Your task to perform on an android device: change the clock display to show seconds Image 0: 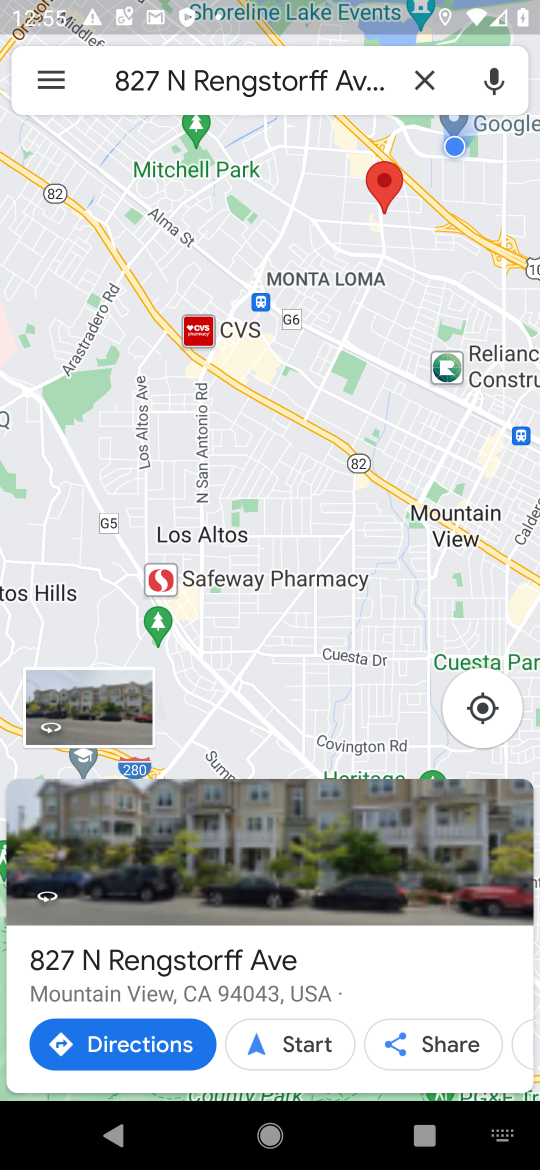
Step 0: drag from (212, 790) to (212, 462)
Your task to perform on an android device: change the clock display to show seconds Image 1: 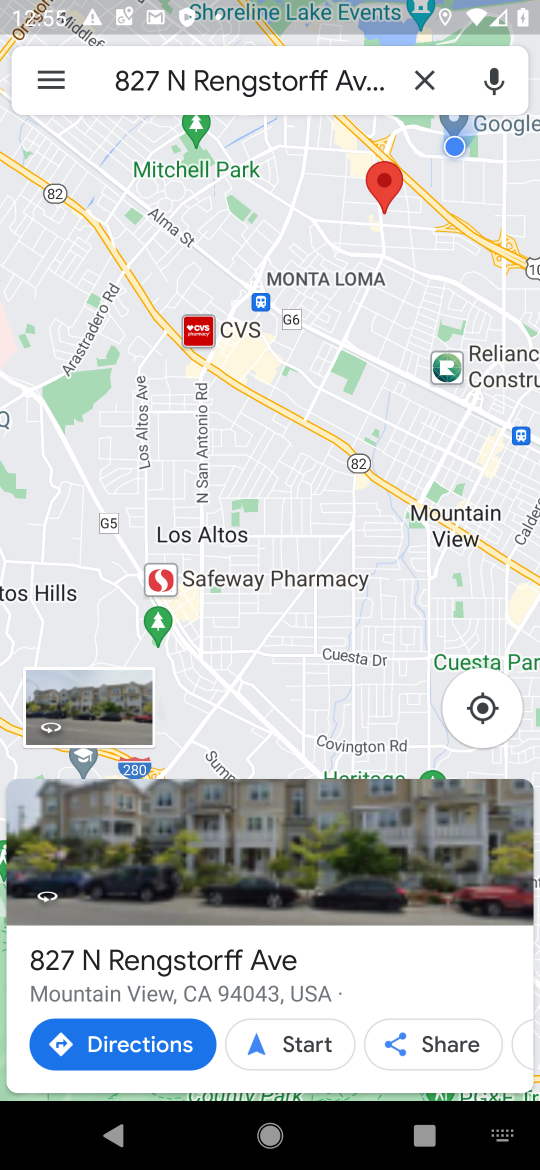
Step 1: drag from (292, 800) to (292, 423)
Your task to perform on an android device: change the clock display to show seconds Image 2: 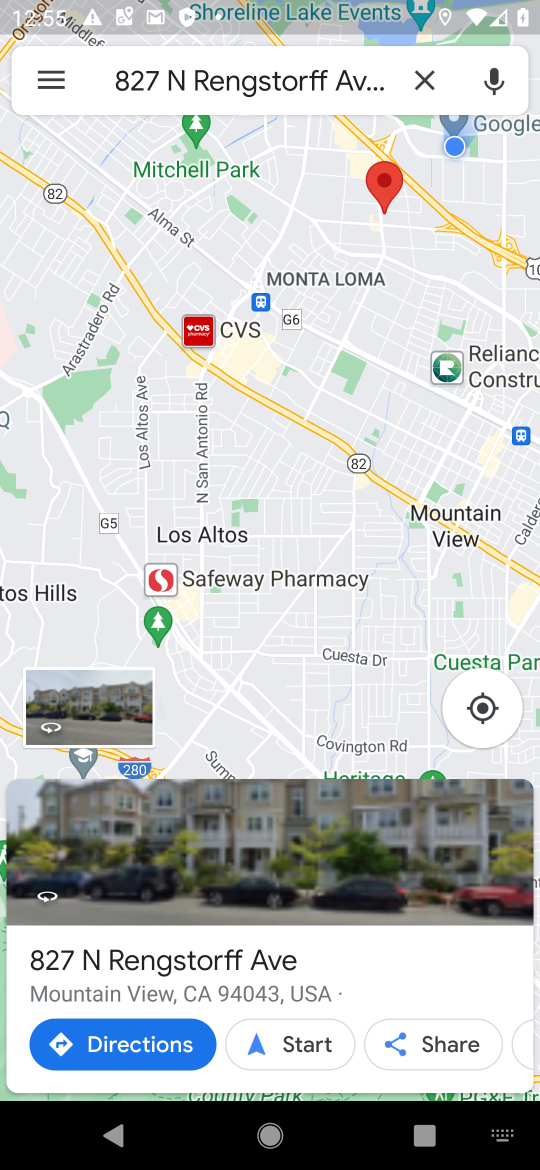
Step 2: press home button
Your task to perform on an android device: change the clock display to show seconds Image 3: 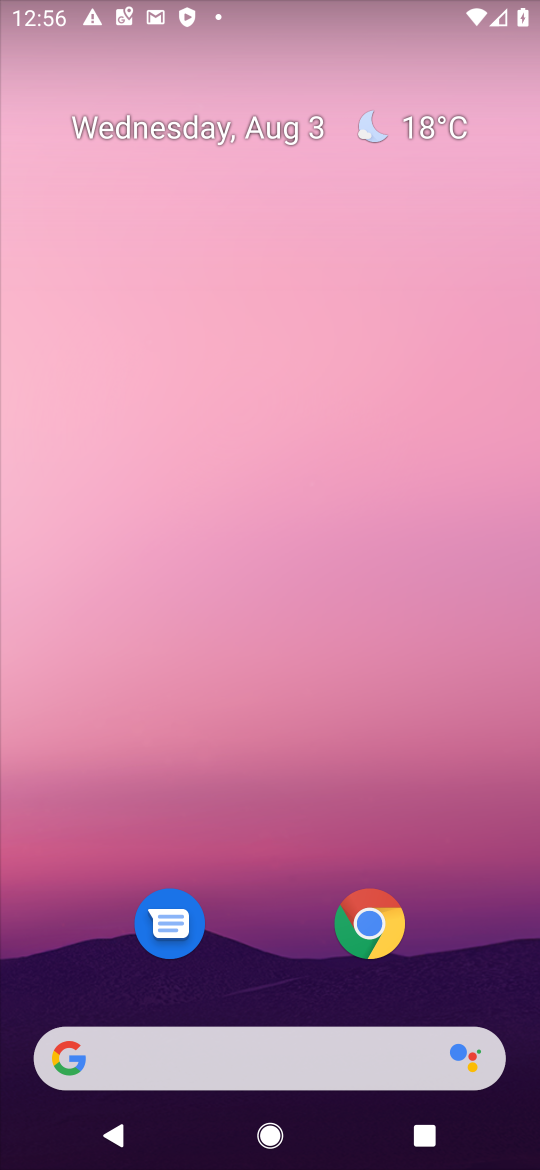
Step 3: drag from (281, 962) to (362, 123)
Your task to perform on an android device: change the clock display to show seconds Image 4: 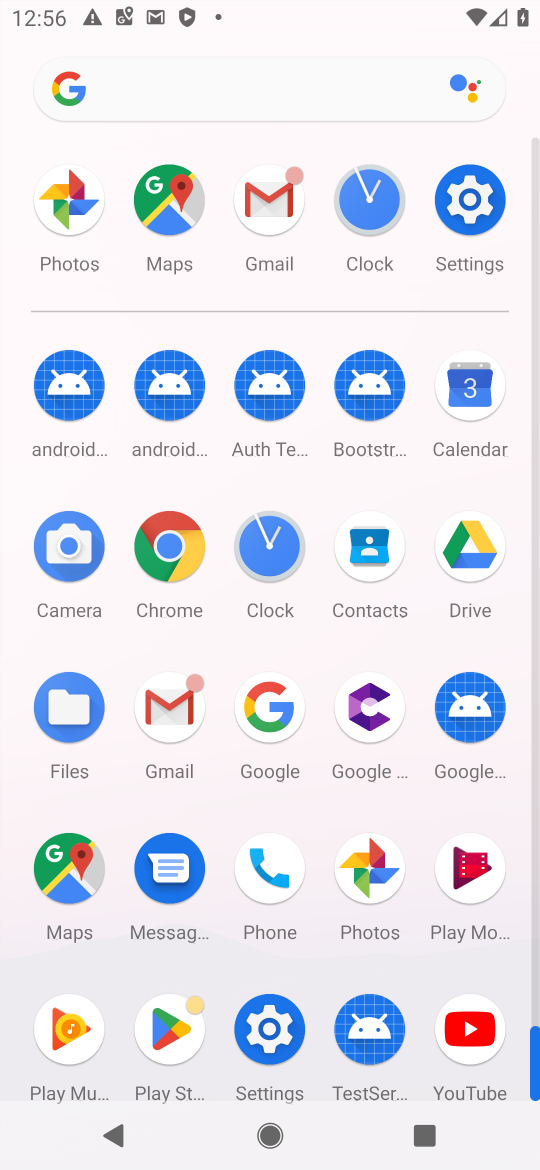
Step 4: click (275, 517)
Your task to perform on an android device: change the clock display to show seconds Image 5: 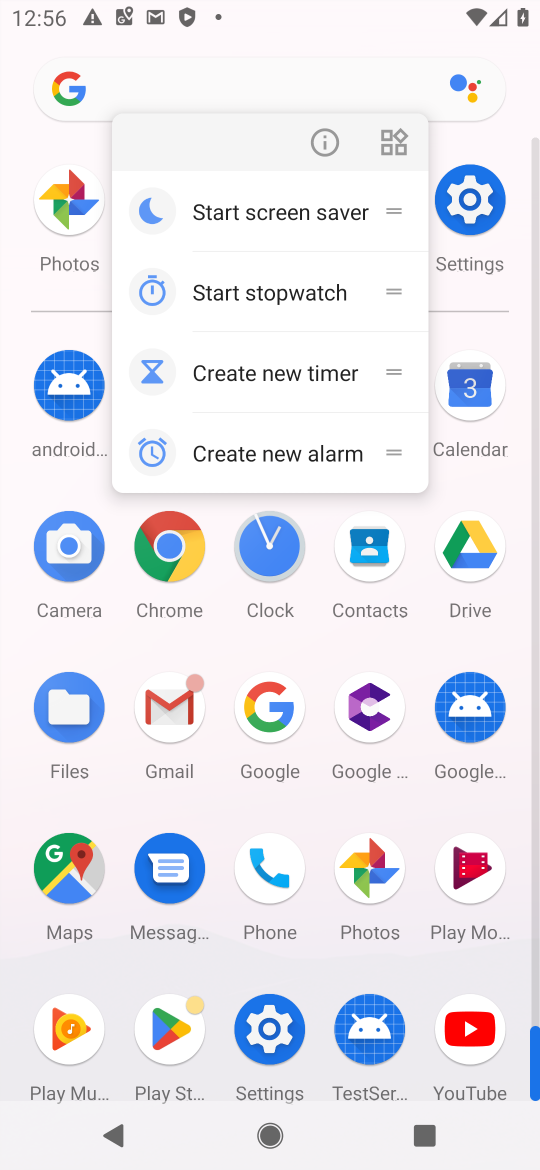
Step 5: click (331, 156)
Your task to perform on an android device: change the clock display to show seconds Image 6: 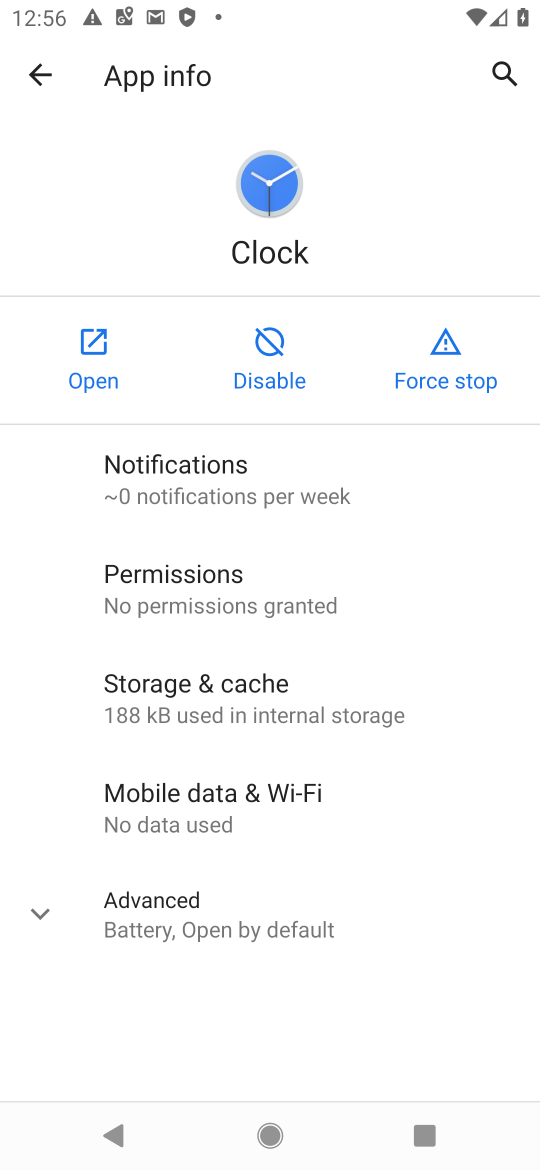
Step 6: click (108, 346)
Your task to perform on an android device: change the clock display to show seconds Image 7: 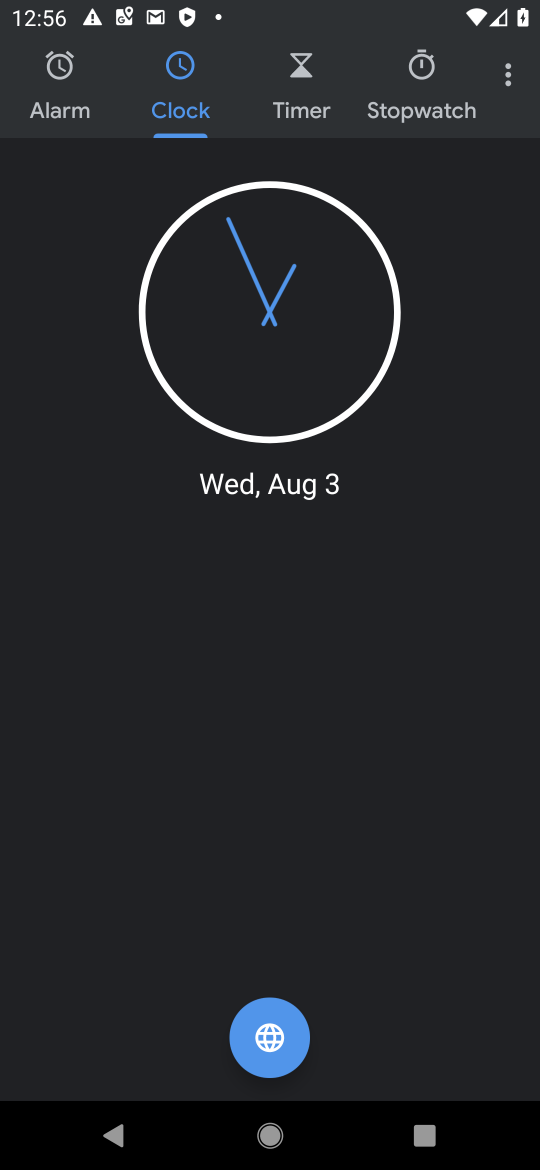
Step 7: click (513, 81)
Your task to perform on an android device: change the clock display to show seconds Image 8: 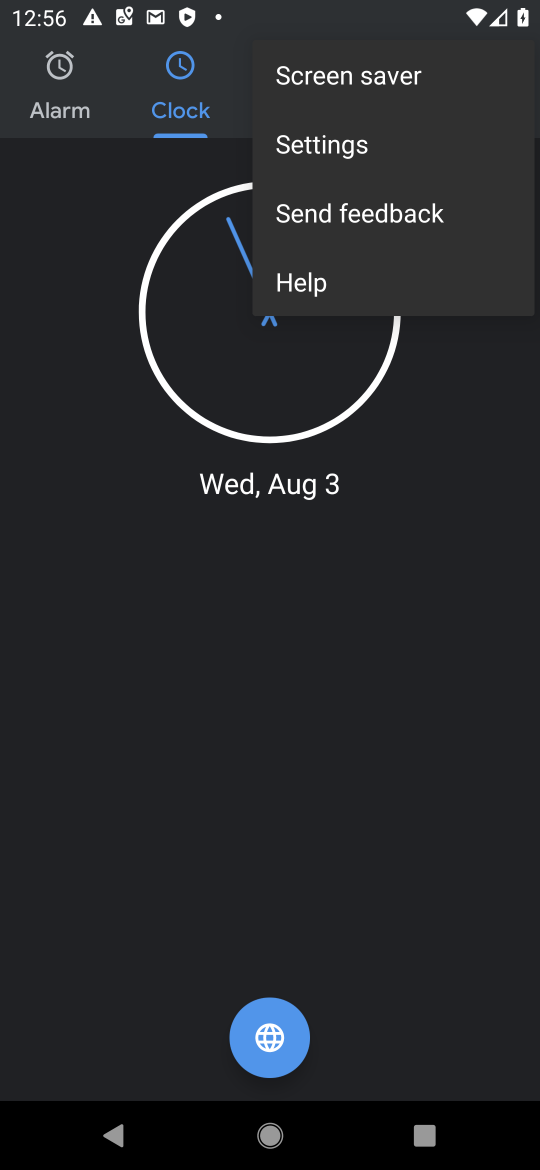
Step 8: click (343, 140)
Your task to perform on an android device: change the clock display to show seconds Image 9: 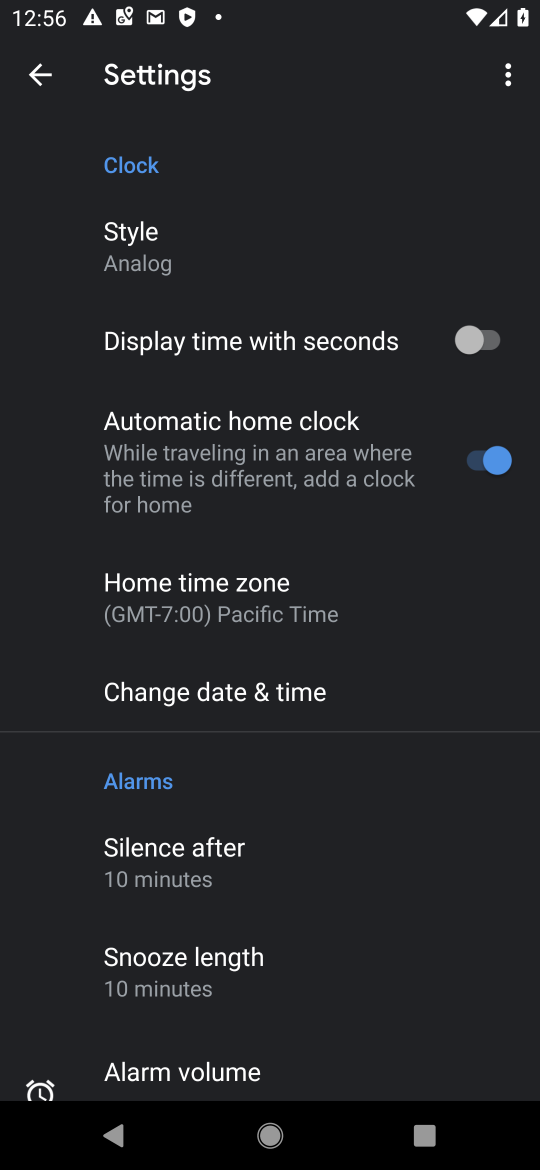
Step 9: drag from (285, 958) to (299, 359)
Your task to perform on an android device: change the clock display to show seconds Image 10: 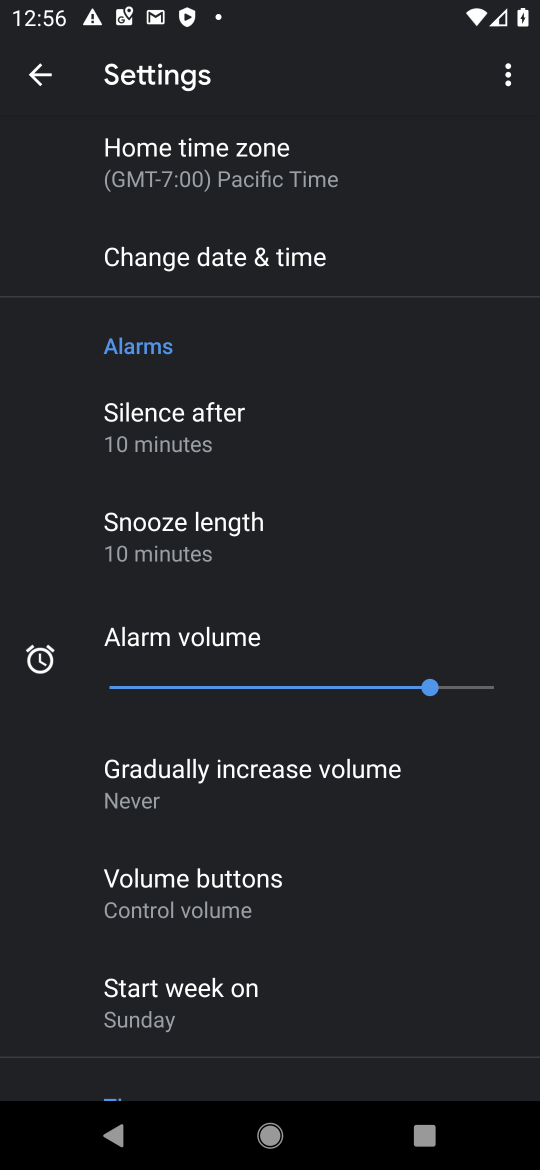
Step 10: drag from (284, 390) to (394, 1165)
Your task to perform on an android device: change the clock display to show seconds Image 11: 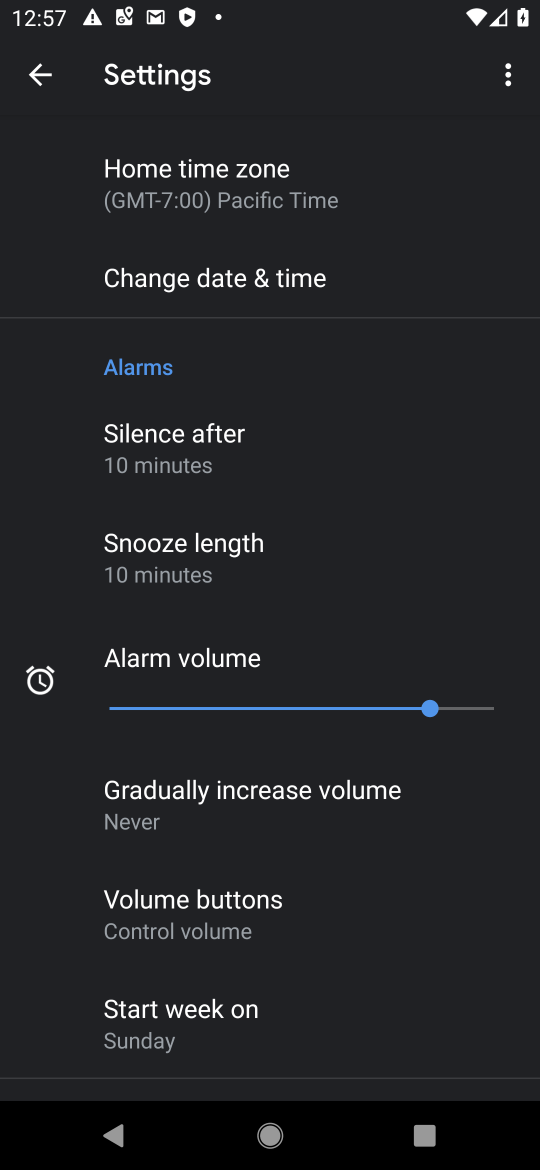
Step 11: drag from (338, 876) to (375, 673)
Your task to perform on an android device: change the clock display to show seconds Image 12: 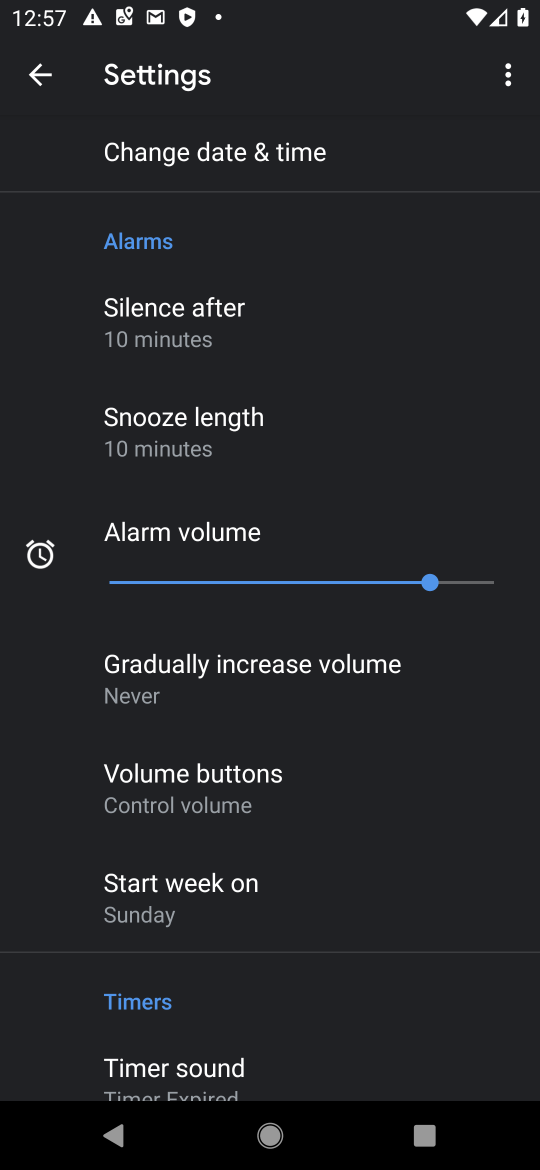
Step 12: drag from (298, 912) to (314, 354)
Your task to perform on an android device: change the clock display to show seconds Image 13: 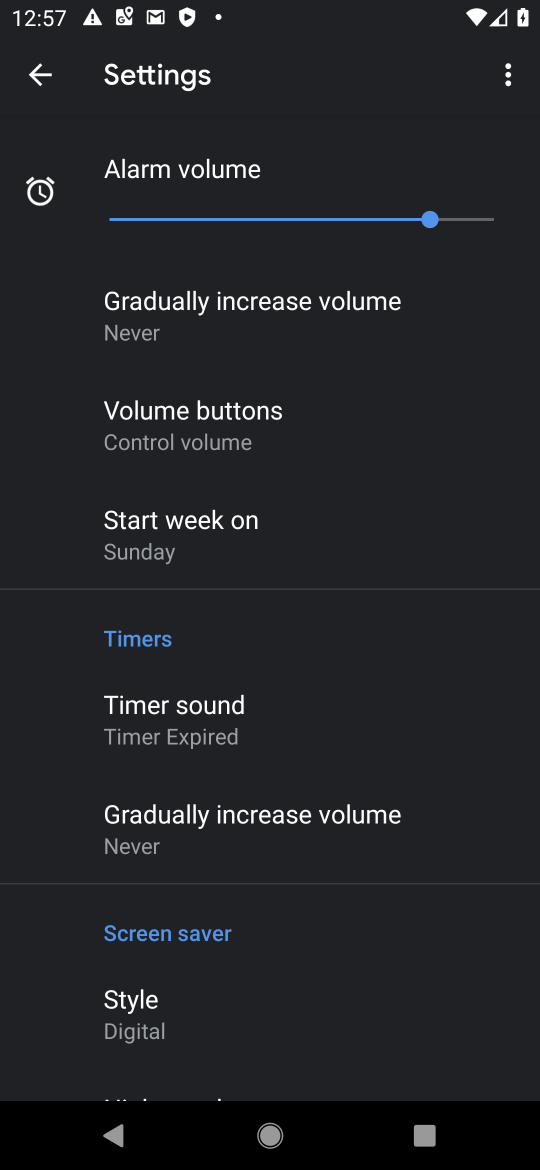
Step 13: drag from (237, 761) to (245, 357)
Your task to perform on an android device: change the clock display to show seconds Image 14: 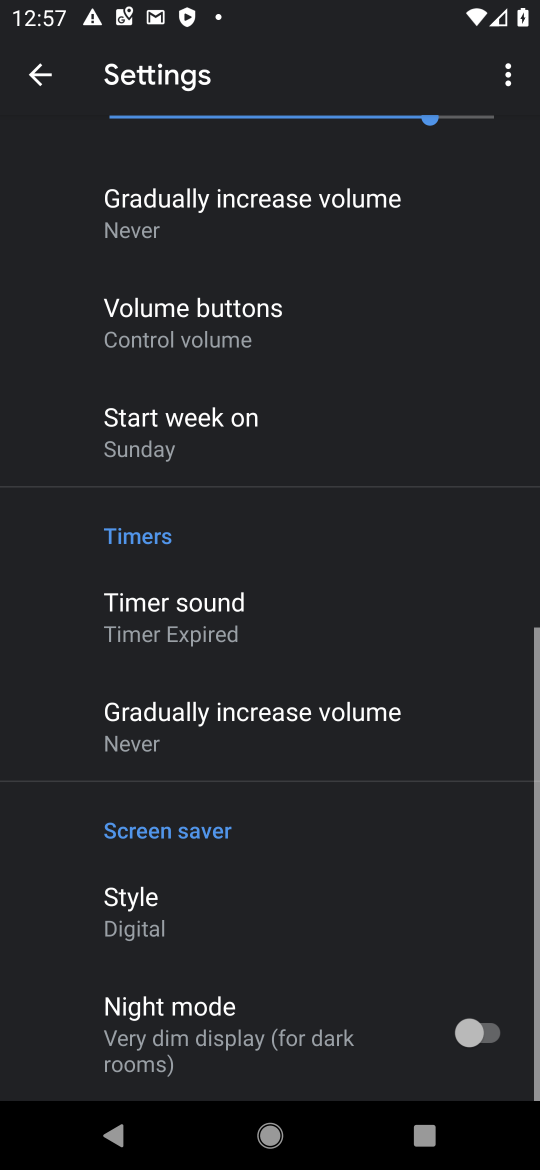
Step 14: drag from (252, 288) to (510, 760)
Your task to perform on an android device: change the clock display to show seconds Image 15: 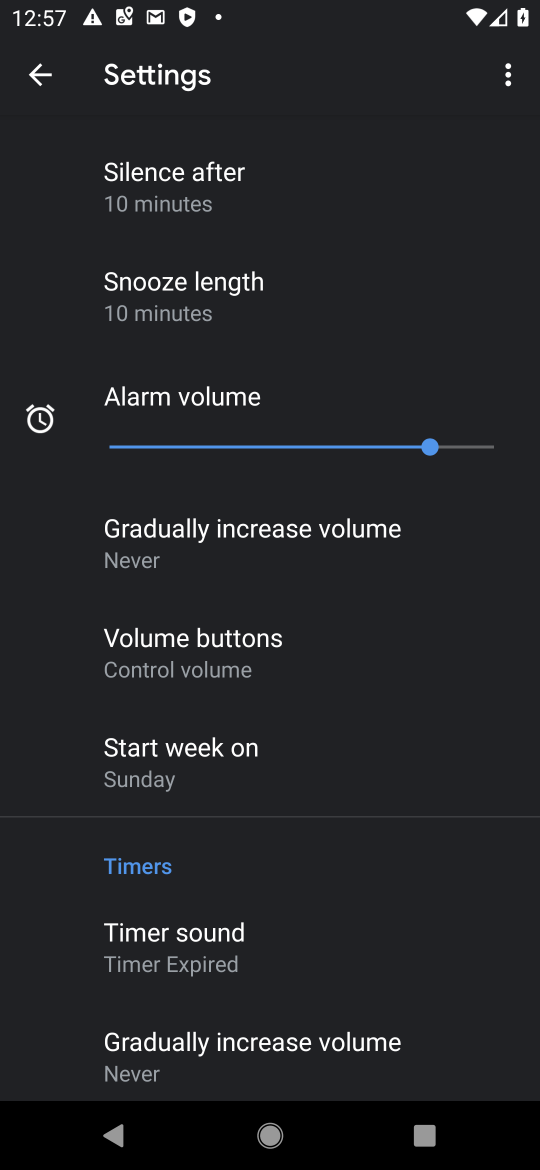
Step 15: drag from (312, 380) to (531, 1032)
Your task to perform on an android device: change the clock display to show seconds Image 16: 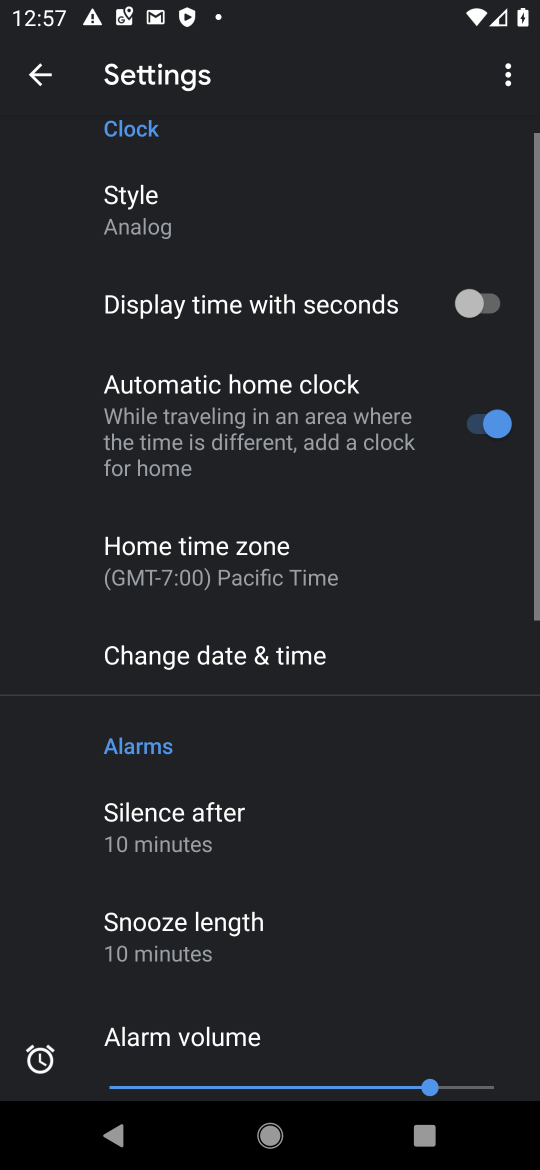
Step 16: drag from (517, 842) to (461, 419)
Your task to perform on an android device: change the clock display to show seconds Image 17: 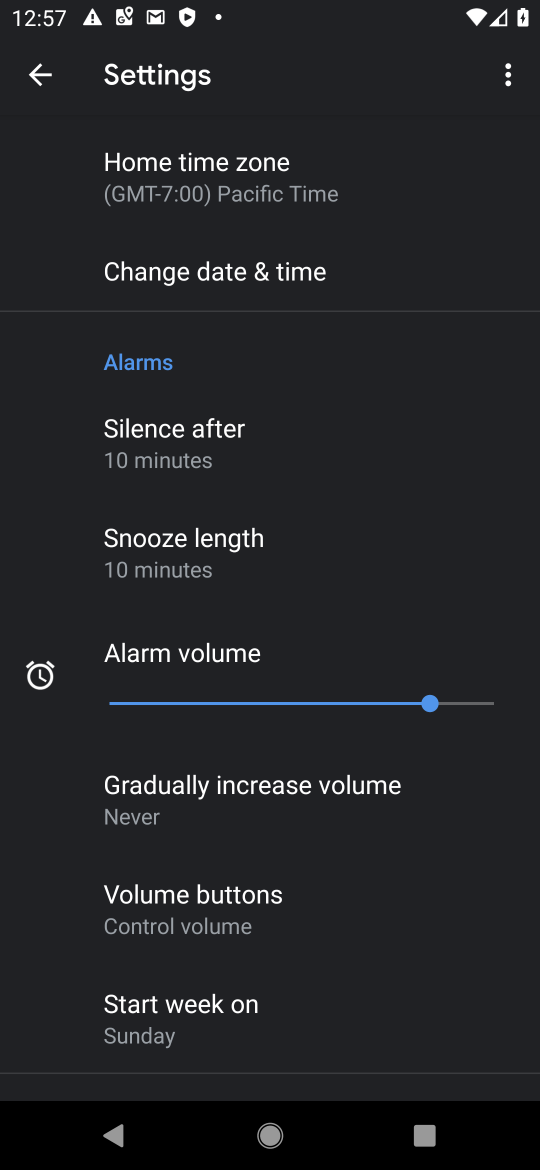
Step 17: drag from (296, 280) to (419, 145)
Your task to perform on an android device: change the clock display to show seconds Image 18: 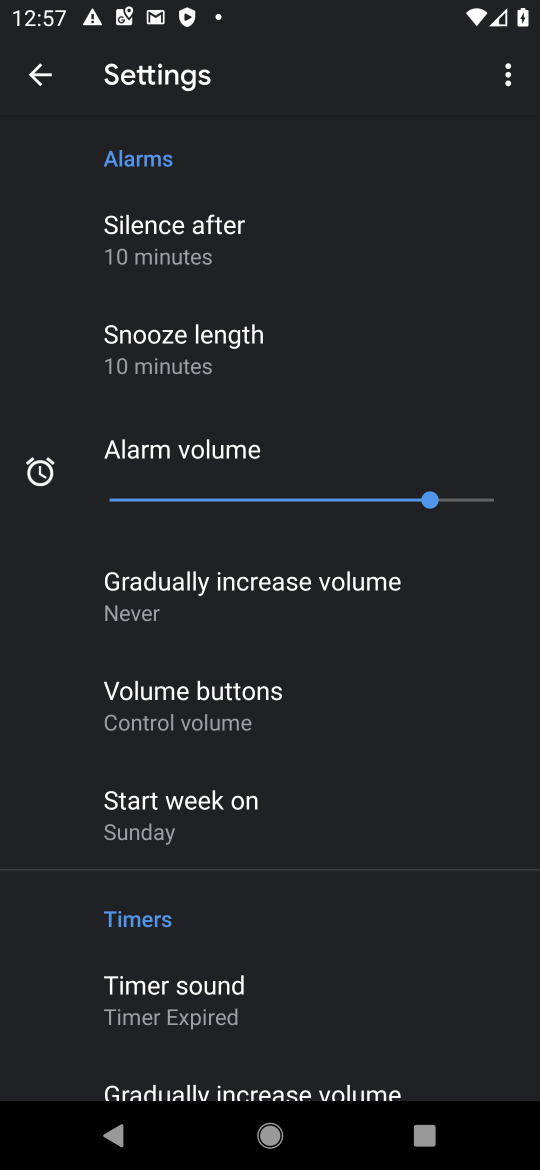
Step 18: drag from (378, 390) to (534, 1067)
Your task to perform on an android device: change the clock display to show seconds Image 19: 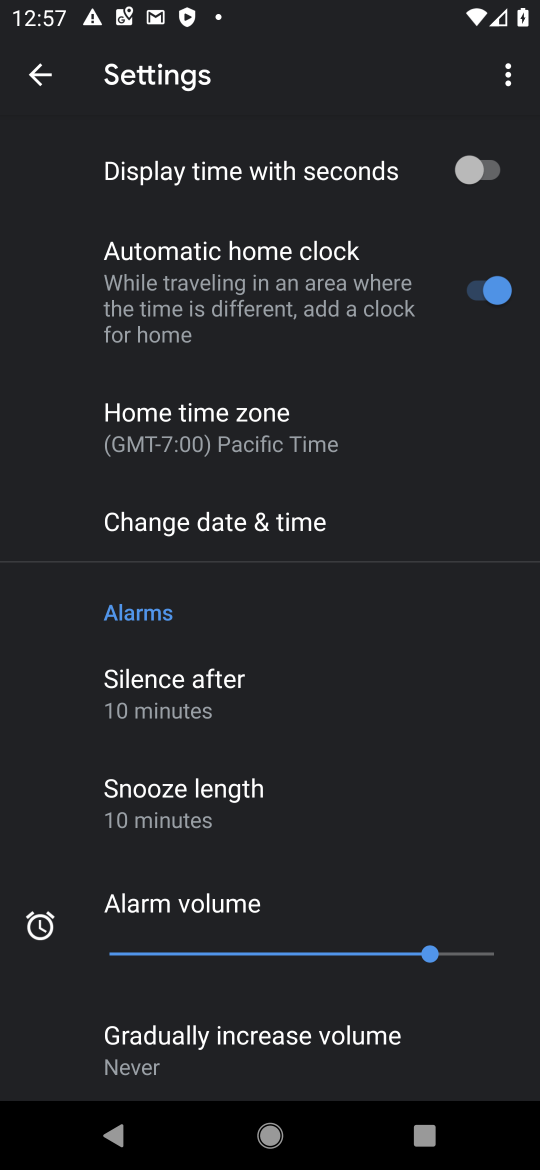
Step 19: click (475, 161)
Your task to perform on an android device: change the clock display to show seconds Image 20: 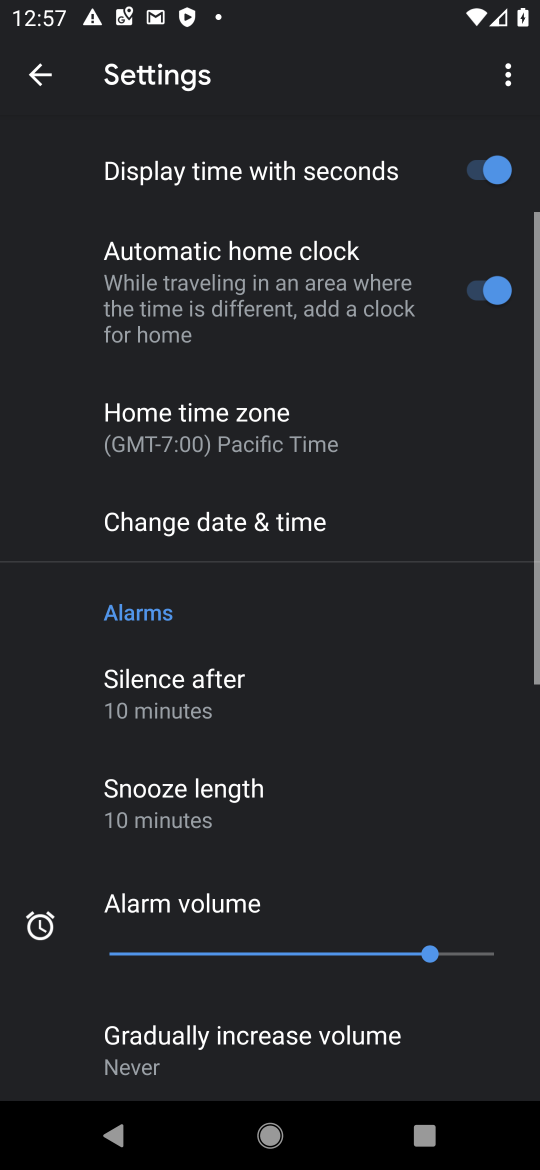
Step 20: task complete